Your task to perform on an android device: Go to network settings Image 0: 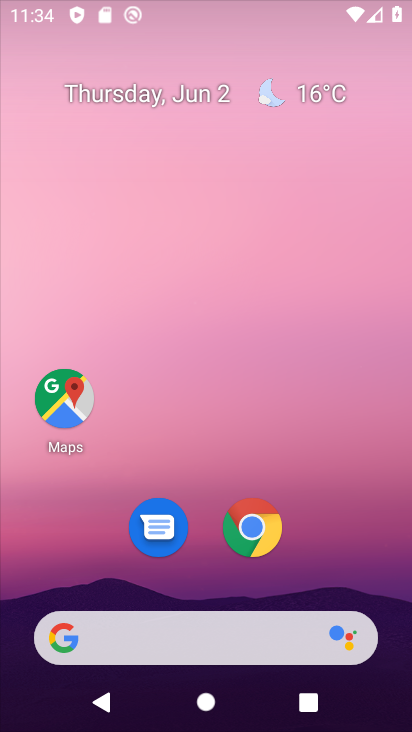
Step 0: drag from (165, 645) to (85, 60)
Your task to perform on an android device: Go to network settings Image 1: 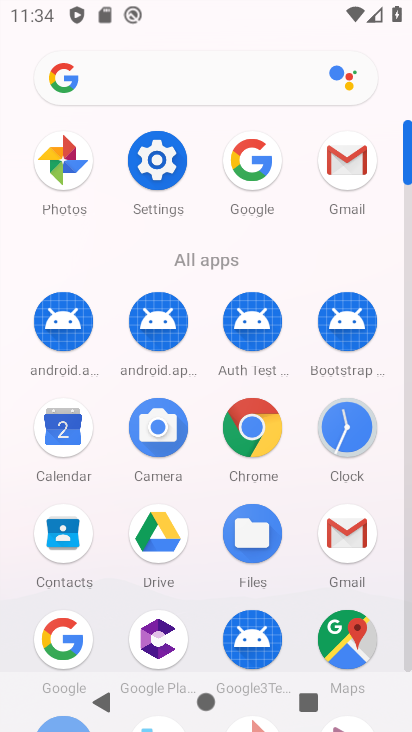
Step 1: click (155, 147)
Your task to perform on an android device: Go to network settings Image 2: 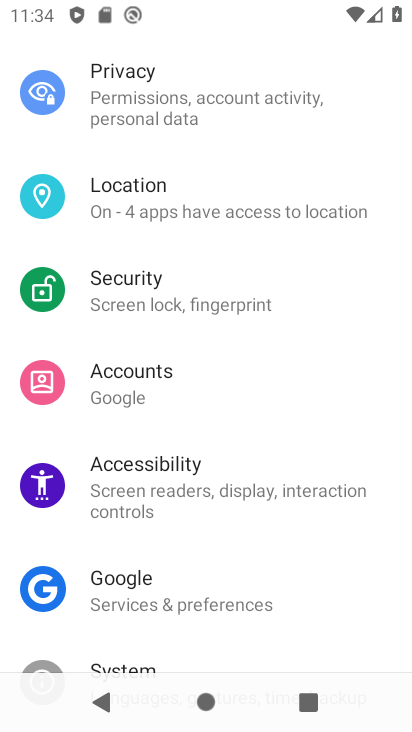
Step 2: drag from (182, 113) to (206, 474)
Your task to perform on an android device: Go to network settings Image 3: 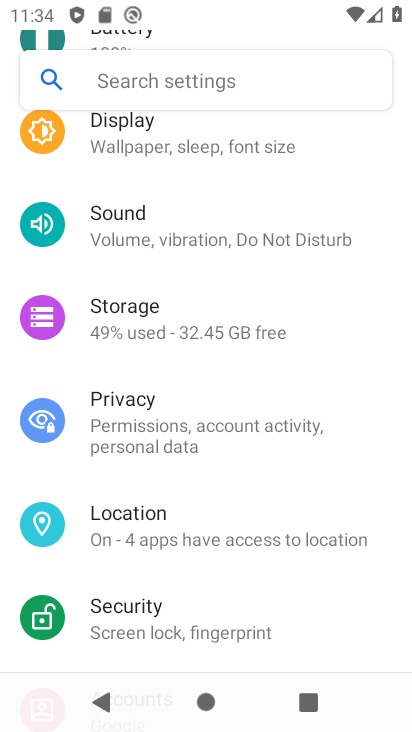
Step 3: drag from (186, 197) to (104, 712)
Your task to perform on an android device: Go to network settings Image 4: 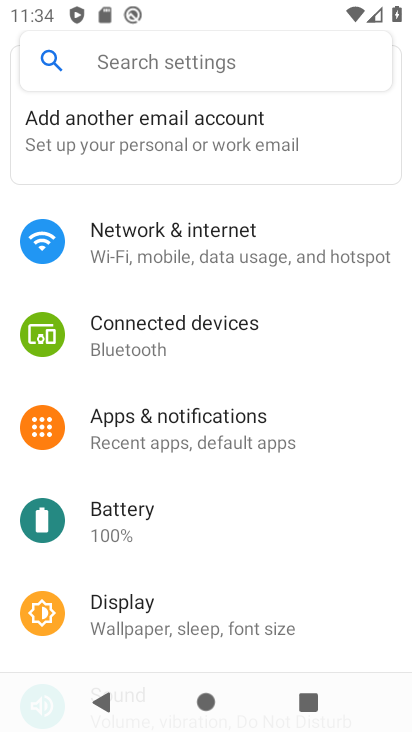
Step 4: click (123, 242)
Your task to perform on an android device: Go to network settings Image 5: 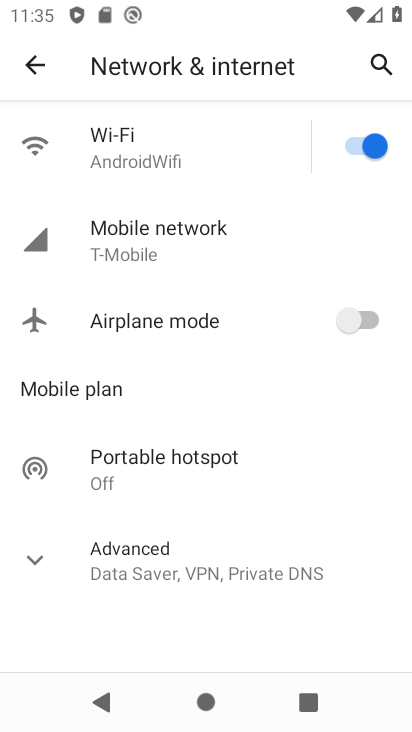
Step 5: task complete